Your task to perform on an android device: allow cookies in the chrome app Image 0: 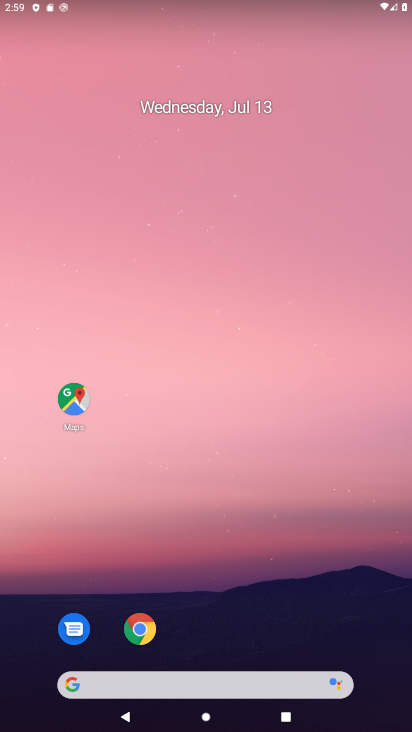
Step 0: click (146, 636)
Your task to perform on an android device: allow cookies in the chrome app Image 1: 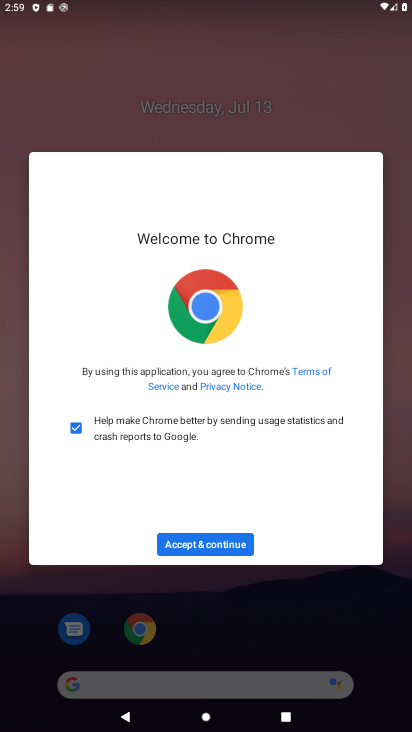
Step 1: click (215, 553)
Your task to perform on an android device: allow cookies in the chrome app Image 2: 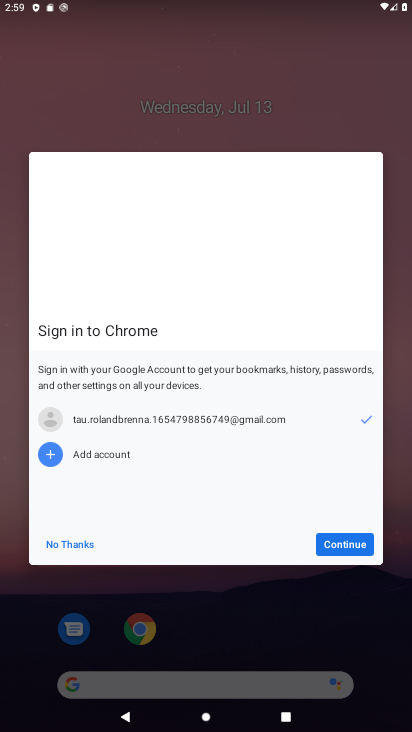
Step 2: click (346, 539)
Your task to perform on an android device: allow cookies in the chrome app Image 3: 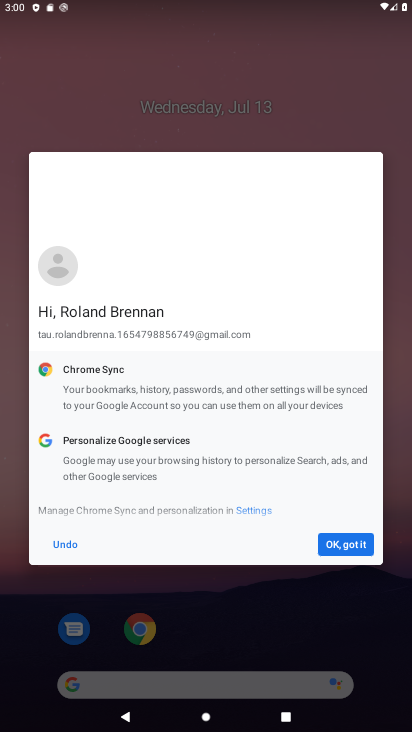
Step 3: click (346, 539)
Your task to perform on an android device: allow cookies in the chrome app Image 4: 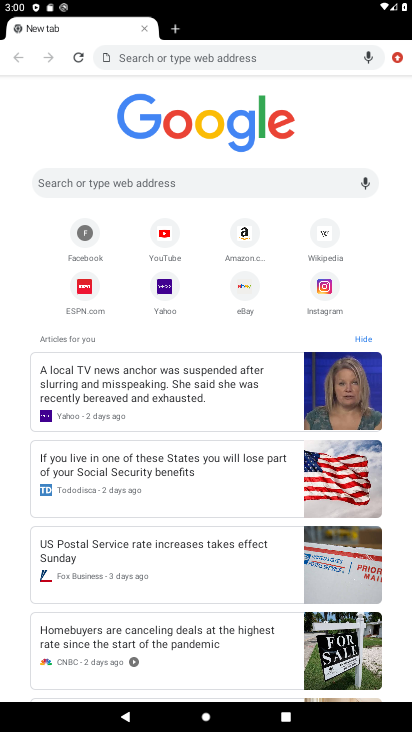
Step 4: click (398, 58)
Your task to perform on an android device: allow cookies in the chrome app Image 5: 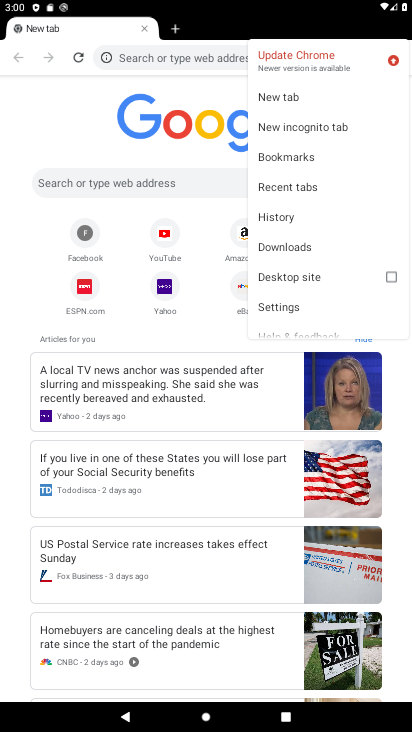
Step 5: click (315, 305)
Your task to perform on an android device: allow cookies in the chrome app Image 6: 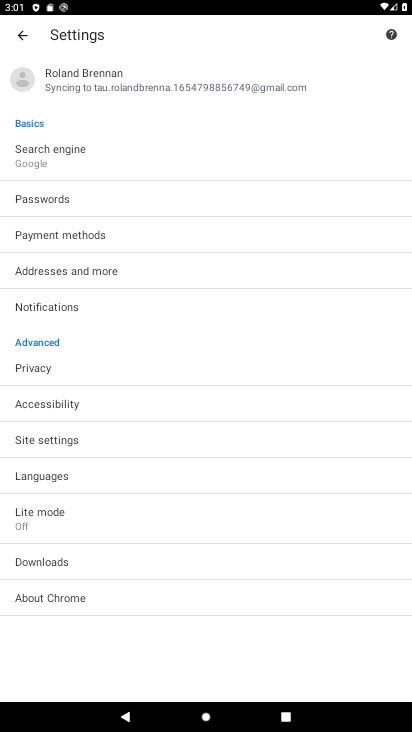
Step 6: click (45, 362)
Your task to perform on an android device: allow cookies in the chrome app Image 7: 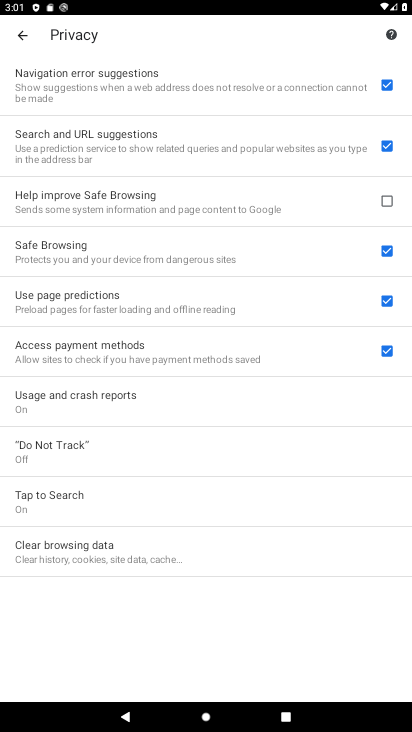
Step 7: drag from (265, 551) to (249, 506)
Your task to perform on an android device: allow cookies in the chrome app Image 8: 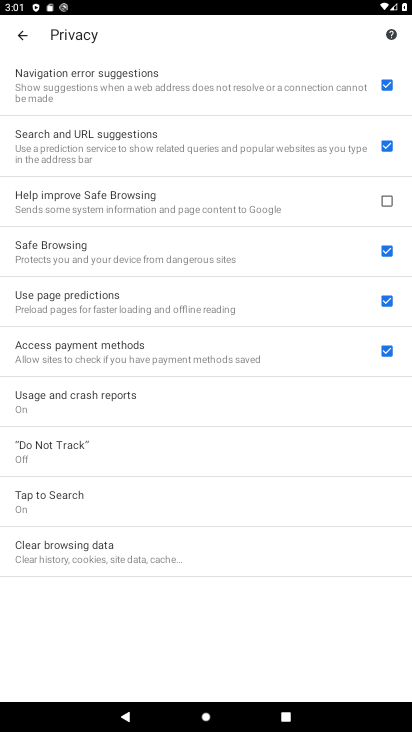
Step 8: click (249, 548)
Your task to perform on an android device: allow cookies in the chrome app Image 9: 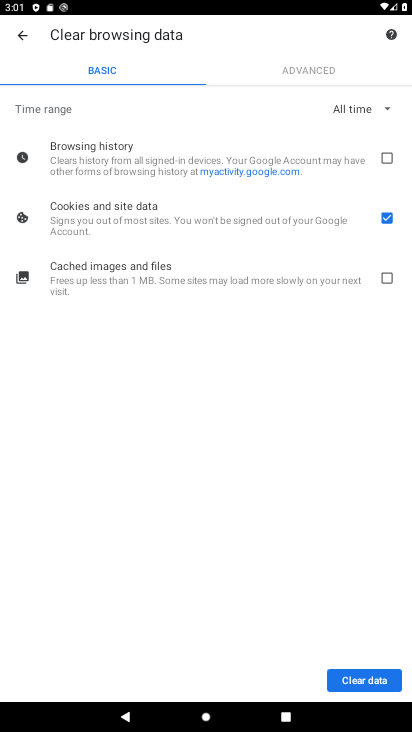
Step 9: click (357, 688)
Your task to perform on an android device: allow cookies in the chrome app Image 10: 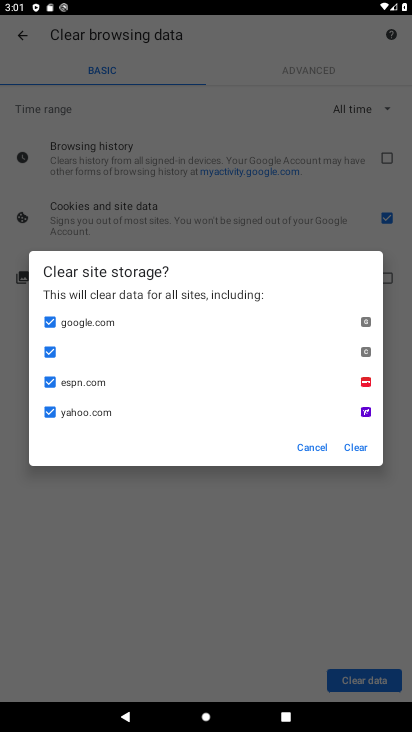
Step 10: click (354, 451)
Your task to perform on an android device: allow cookies in the chrome app Image 11: 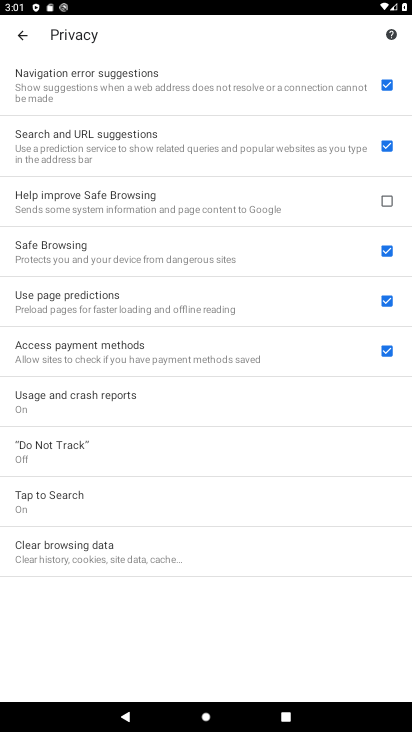
Step 11: task complete